Your task to perform on an android device: remove spam from my inbox in the gmail app Image 0: 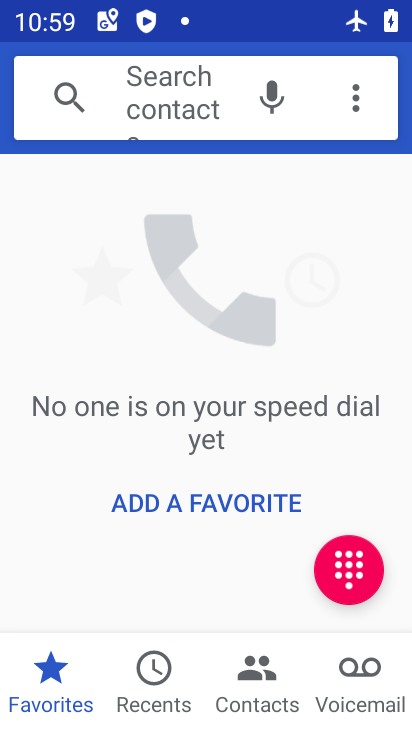
Step 0: press home button
Your task to perform on an android device: remove spam from my inbox in the gmail app Image 1: 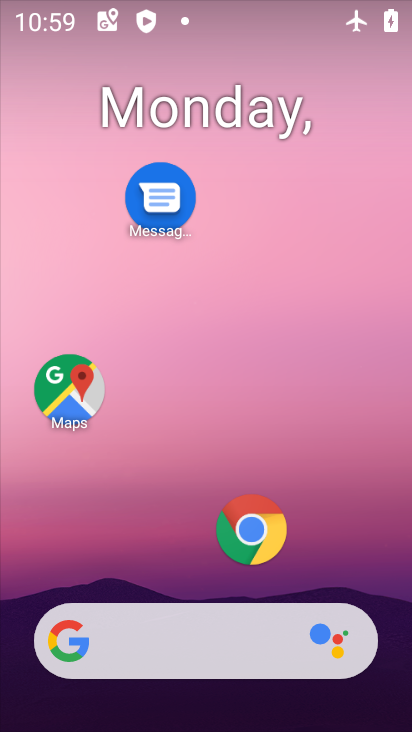
Step 1: drag from (195, 555) to (243, 197)
Your task to perform on an android device: remove spam from my inbox in the gmail app Image 2: 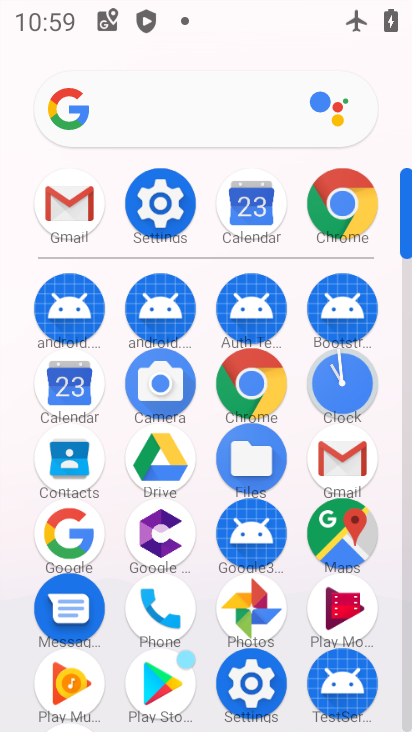
Step 2: click (346, 468)
Your task to perform on an android device: remove spam from my inbox in the gmail app Image 3: 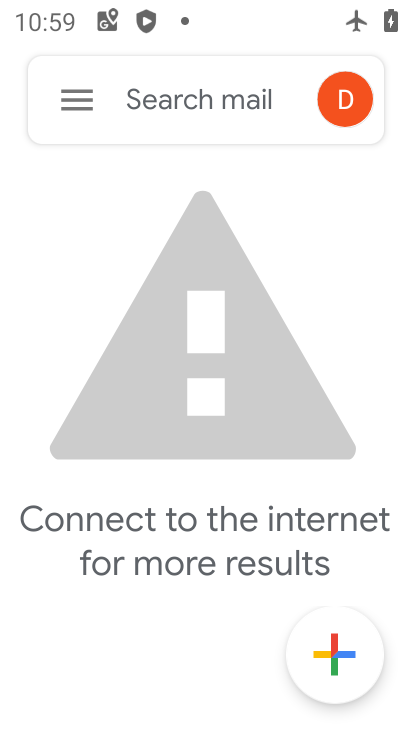
Step 3: click (70, 91)
Your task to perform on an android device: remove spam from my inbox in the gmail app Image 4: 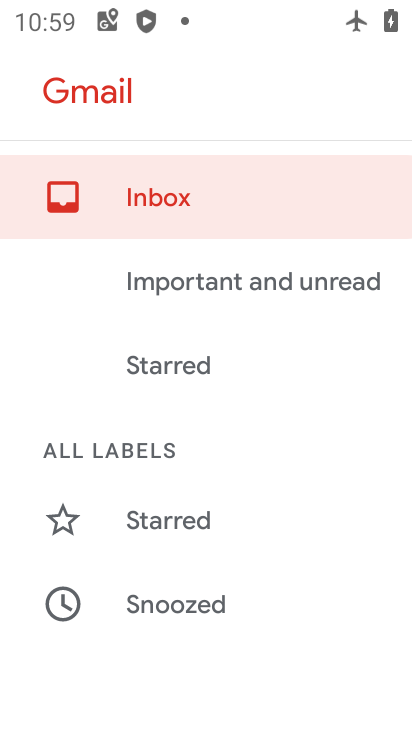
Step 4: drag from (238, 270) to (233, 34)
Your task to perform on an android device: remove spam from my inbox in the gmail app Image 5: 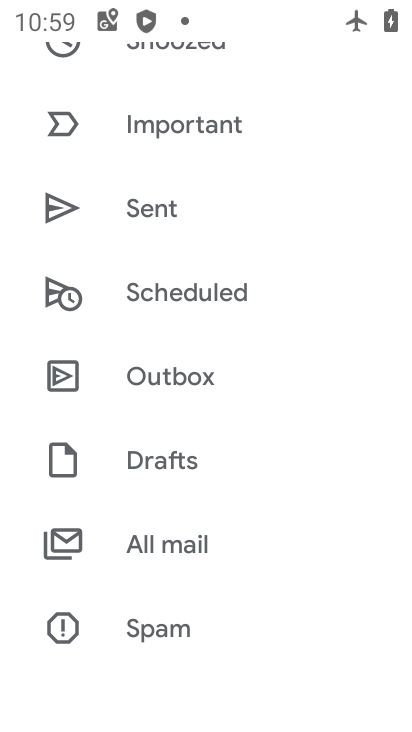
Step 5: click (192, 622)
Your task to perform on an android device: remove spam from my inbox in the gmail app Image 6: 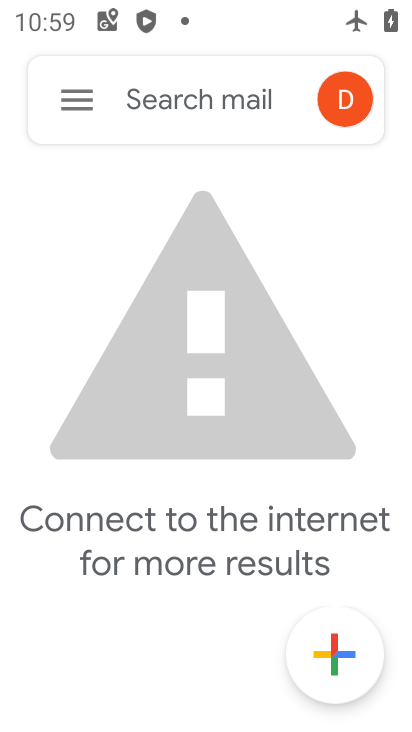
Step 6: task complete